Your task to perform on an android device: turn on sleep mode Image 0: 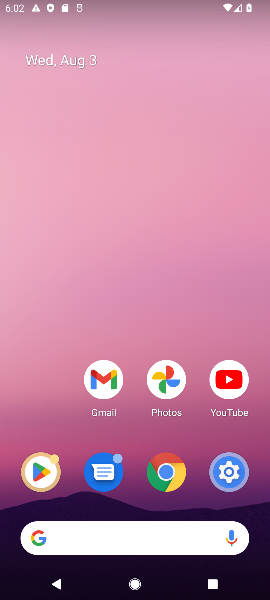
Step 0: click (231, 465)
Your task to perform on an android device: turn on sleep mode Image 1: 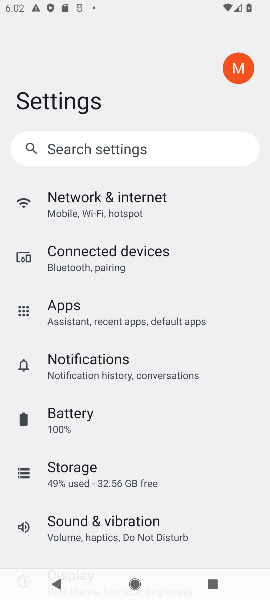
Step 1: drag from (196, 476) to (157, 158)
Your task to perform on an android device: turn on sleep mode Image 2: 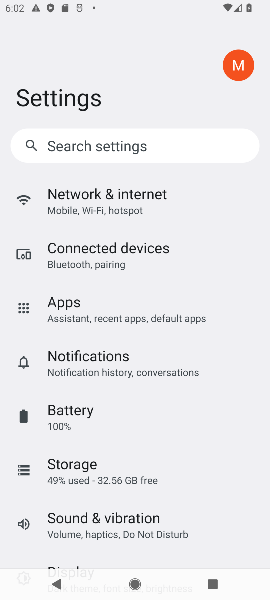
Step 2: drag from (243, 540) to (141, 131)
Your task to perform on an android device: turn on sleep mode Image 3: 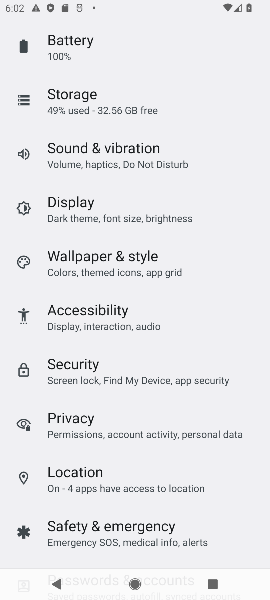
Step 3: click (169, 215)
Your task to perform on an android device: turn on sleep mode Image 4: 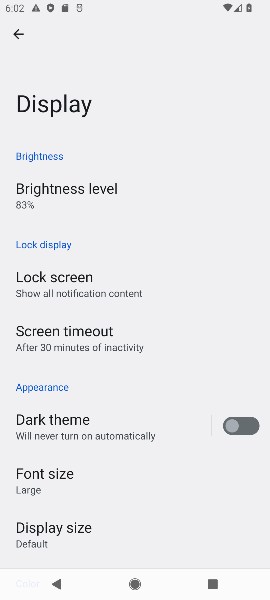
Step 4: task complete